Your task to perform on an android device: Open internet settings Image 0: 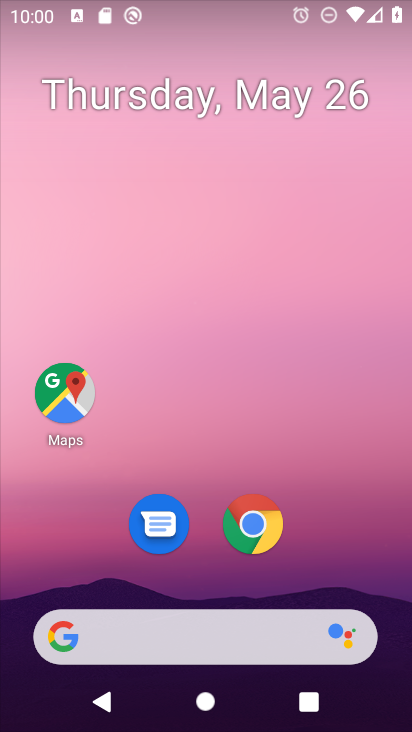
Step 0: drag from (324, 469) to (295, 37)
Your task to perform on an android device: Open internet settings Image 1: 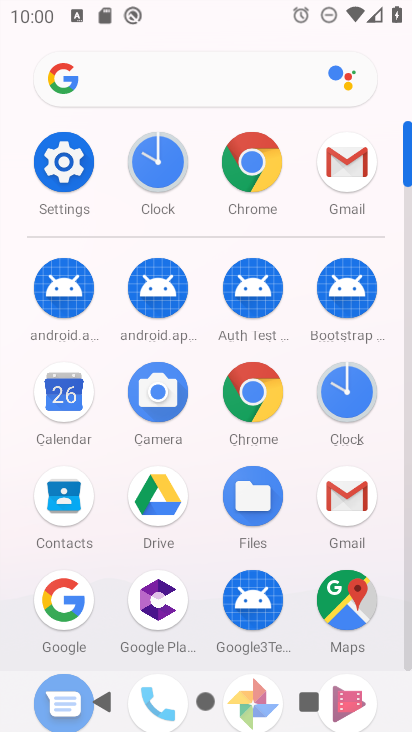
Step 1: click (61, 160)
Your task to perform on an android device: Open internet settings Image 2: 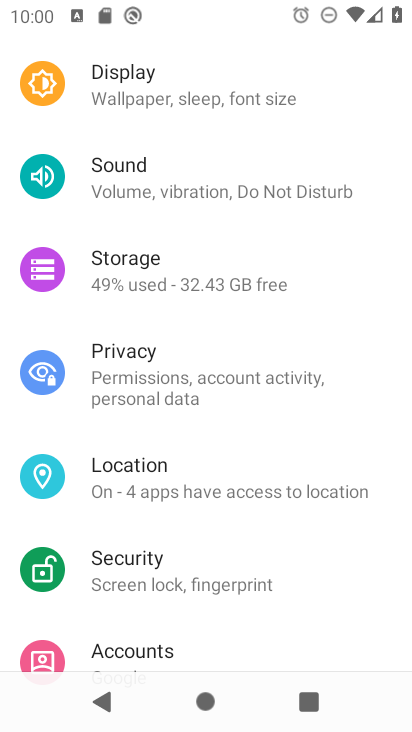
Step 2: drag from (212, 128) to (199, 626)
Your task to perform on an android device: Open internet settings Image 3: 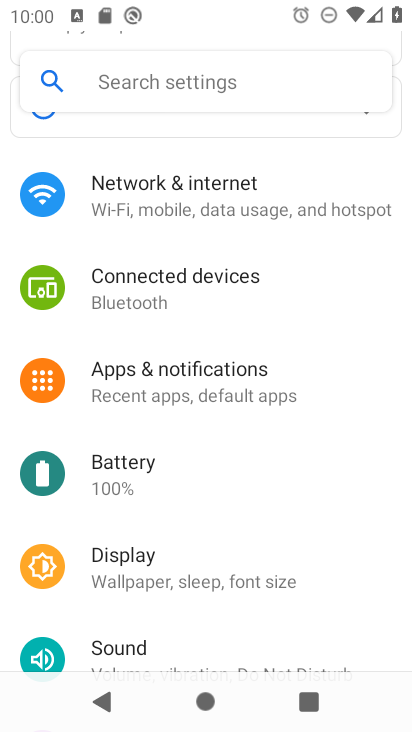
Step 3: drag from (278, 278) to (271, 543)
Your task to perform on an android device: Open internet settings Image 4: 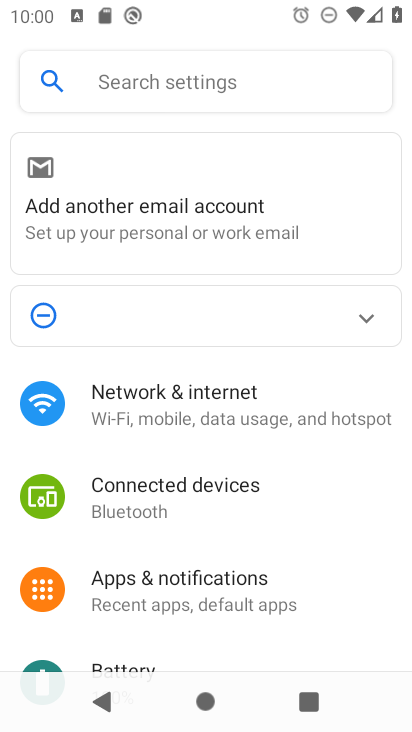
Step 4: click (219, 425)
Your task to perform on an android device: Open internet settings Image 5: 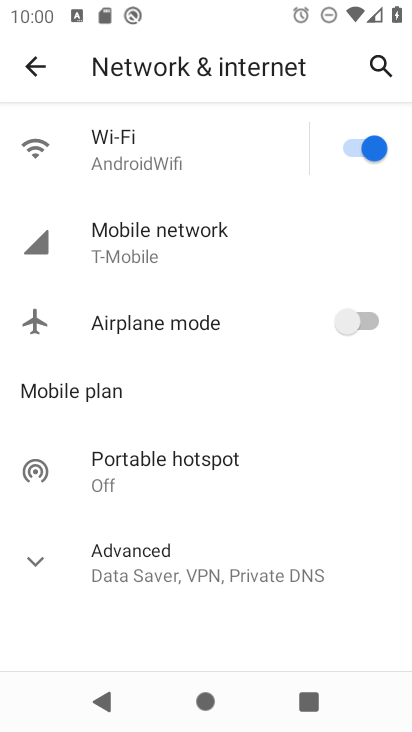
Step 5: task complete